Your task to perform on an android device: Open network settings Image 0: 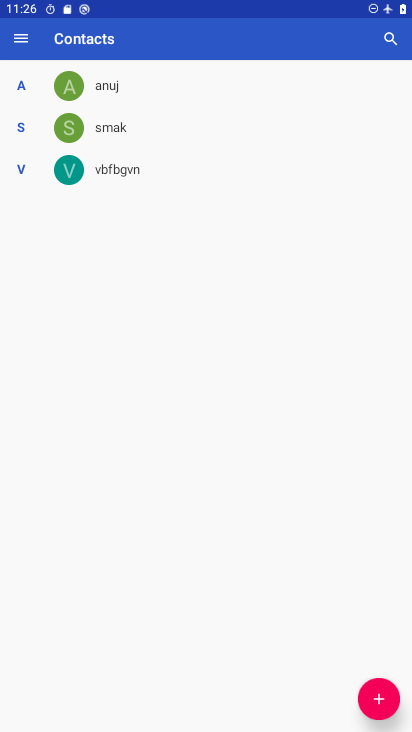
Step 0: press home button
Your task to perform on an android device: Open network settings Image 1: 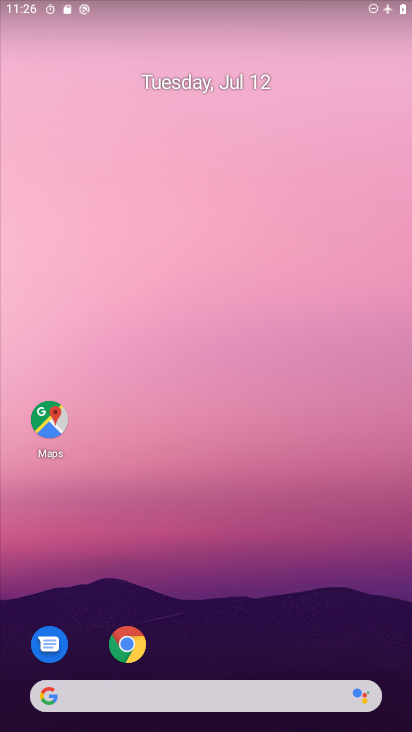
Step 1: drag from (215, 656) to (216, 178)
Your task to perform on an android device: Open network settings Image 2: 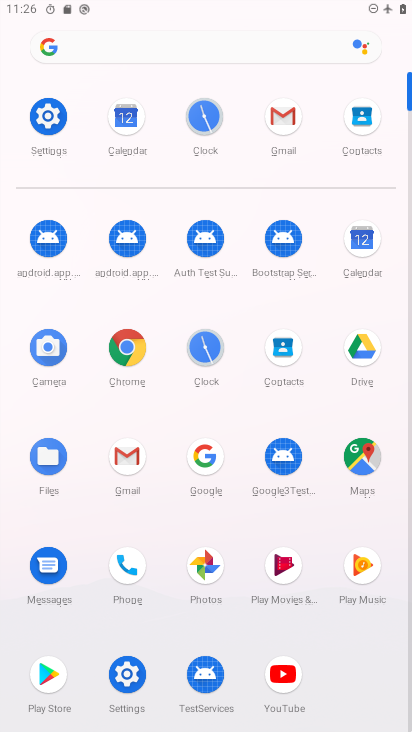
Step 2: click (59, 111)
Your task to perform on an android device: Open network settings Image 3: 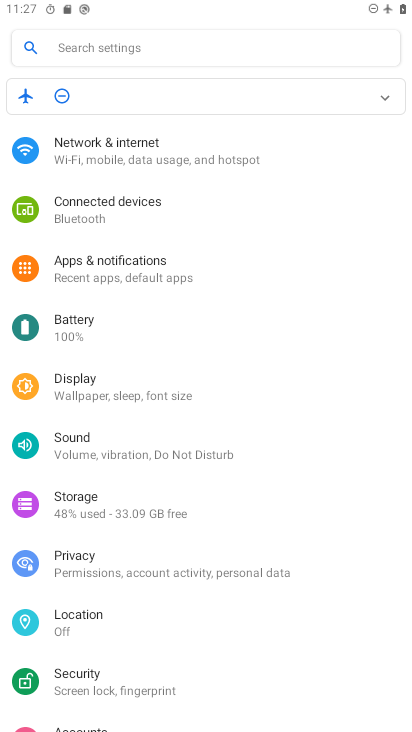
Step 3: click (97, 152)
Your task to perform on an android device: Open network settings Image 4: 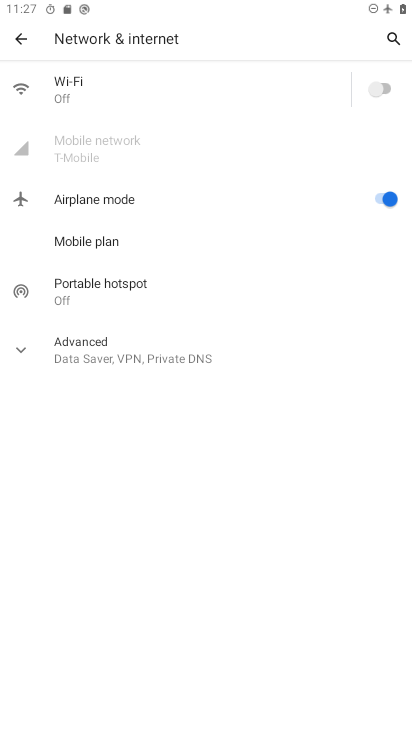
Step 4: task complete